Your task to perform on an android device: Open Reddit.com Image 0: 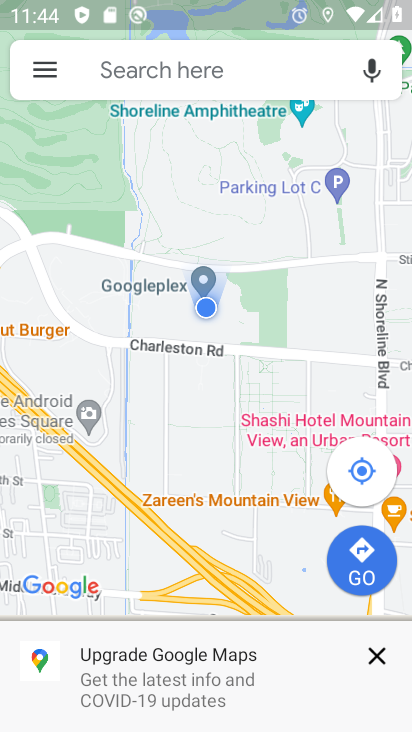
Step 0: press home button
Your task to perform on an android device: Open Reddit.com Image 1: 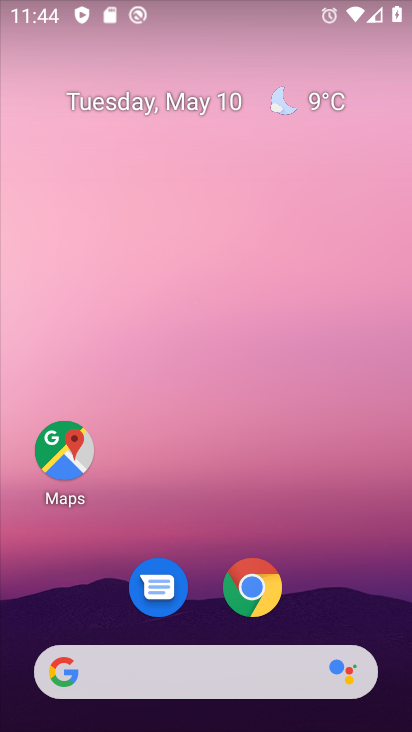
Step 1: click (256, 599)
Your task to perform on an android device: Open Reddit.com Image 2: 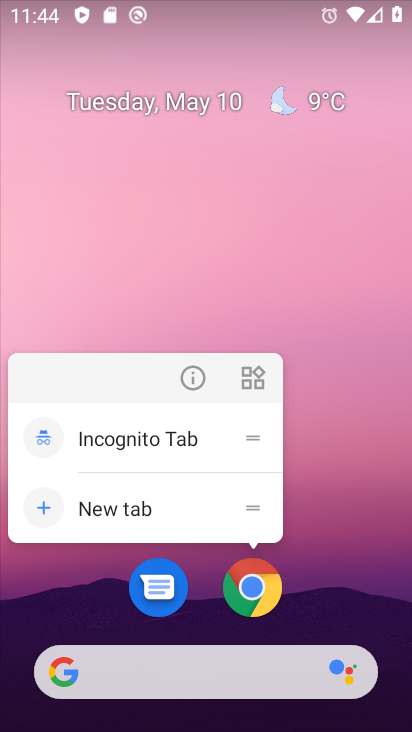
Step 2: click (252, 591)
Your task to perform on an android device: Open Reddit.com Image 3: 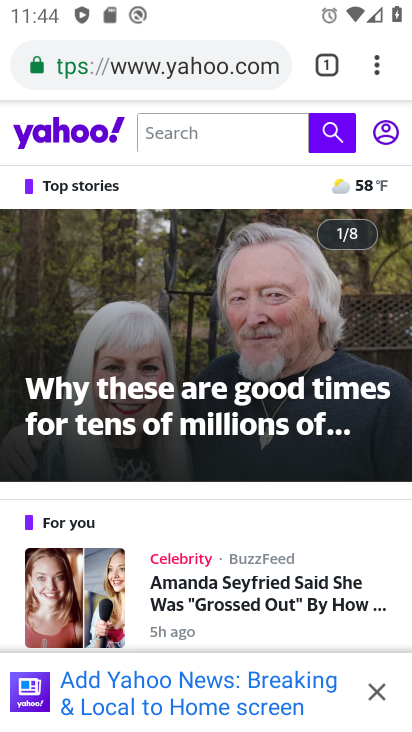
Step 3: click (130, 74)
Your task to perform on an android device: Open Reddit.com Image 4: 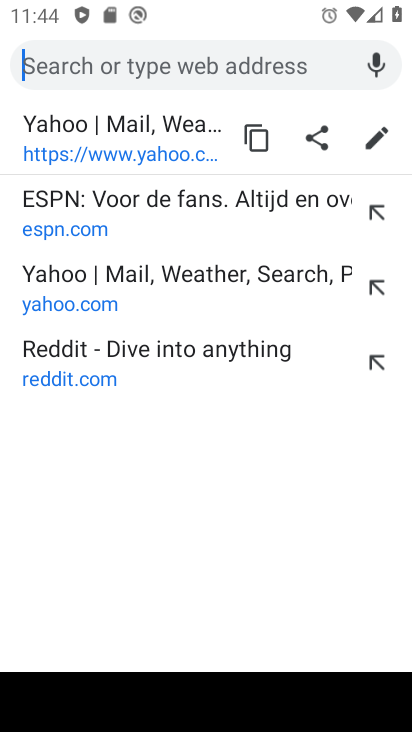
Step 4: click (72, 350)
Your task to perform on an android device: Open Reddit.com Image 5: 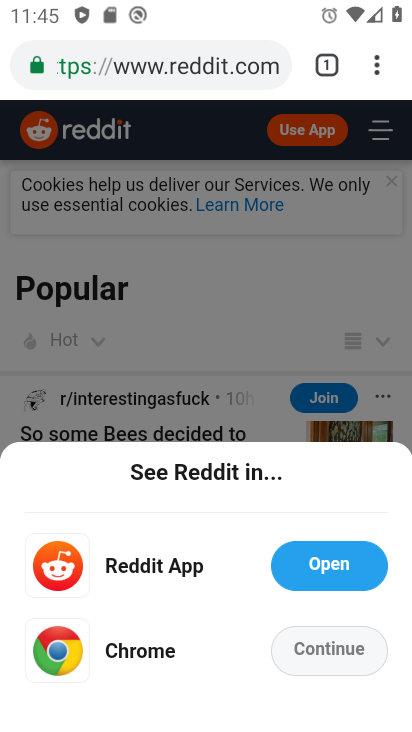
Step 5: task complete